Your task to perform on an android device: Open battery settings Image 0: 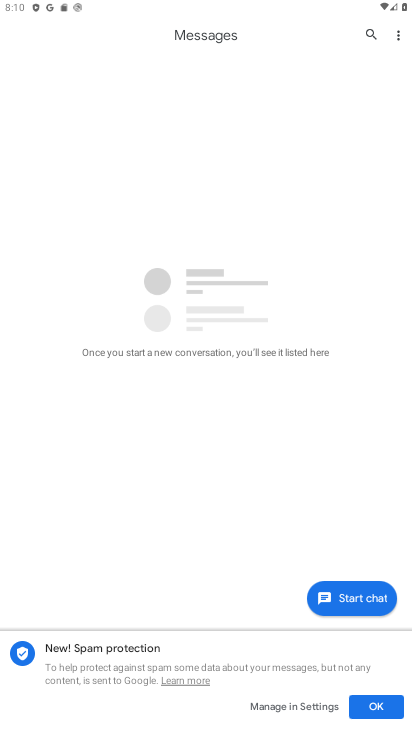
Step 0: press home button
Your task to perform on an android device: Open battery settings Image 1: 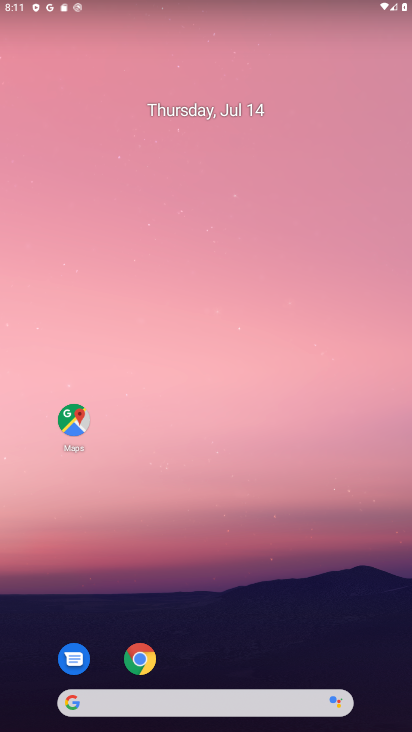
Step 1: drag from (187, 619) to (143, 108)
Your task to perform on an android device: Open battery settings Image 2: 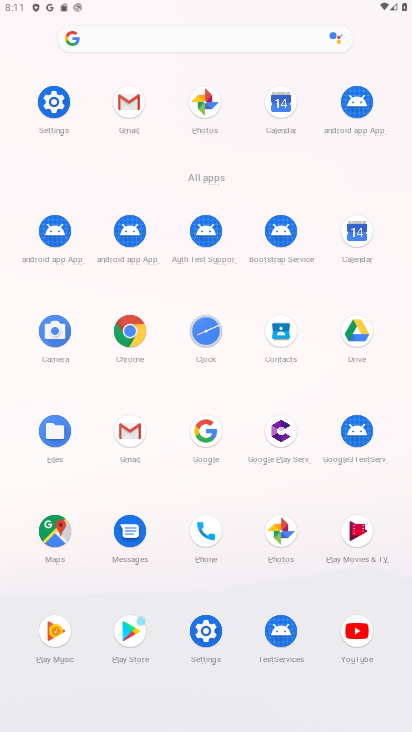
Step 2: click (43, 109)
Your task to perform on an android device: Open battery settings Image 3: 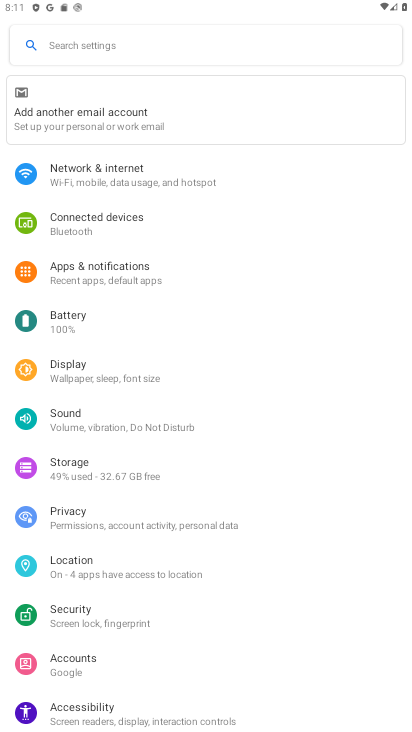
Step 3: click (138, 326)
Your task to perform on an android device: Open battery settings Image 4: 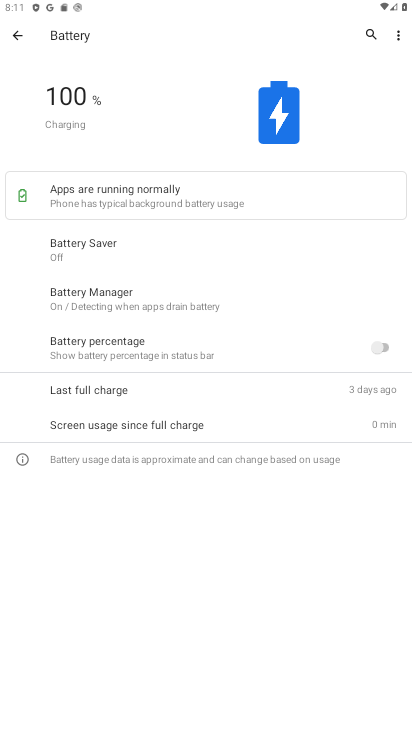
Step 4: task complete